Your task to perform on an android device: Check the weather Image 0: 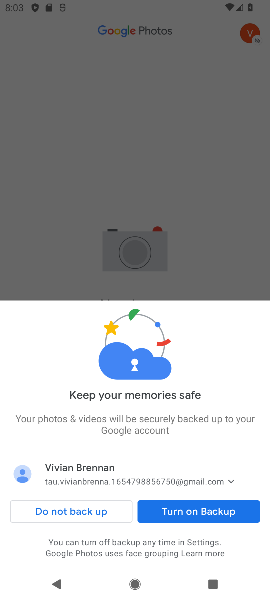
Step 0: press home button
Your task to perform on an android device: Check the weather Image 1: 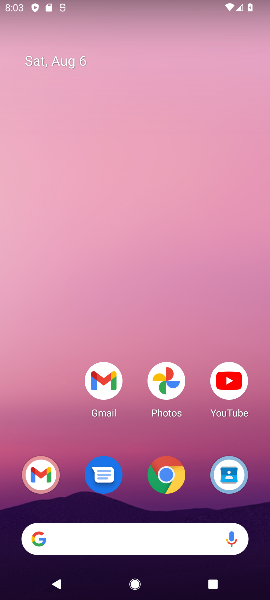
Step 1: drag from (129, 440) to (132, 89)
Your task to perform on an android device: Check the weather Image 2: 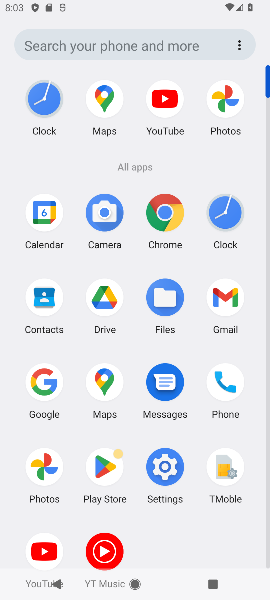
Step 2: click (49, 374)
Your task to perform on an android device: Check the weather Image 3: 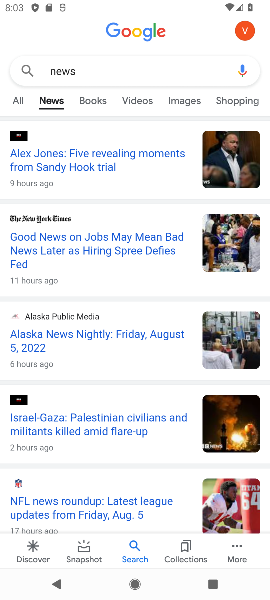
Step 3: click (94, 78)
Your task to perform on an android device: Check the weather Image 4: 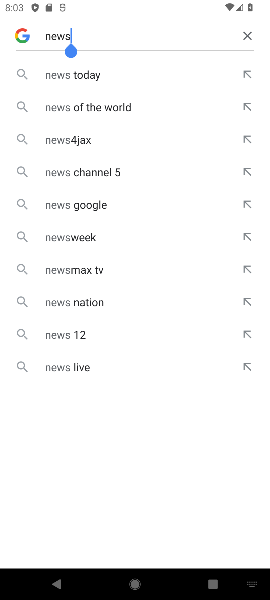
Step 4: click (243, 30)
Your task to perform on an android device: Check the weather Image 5: 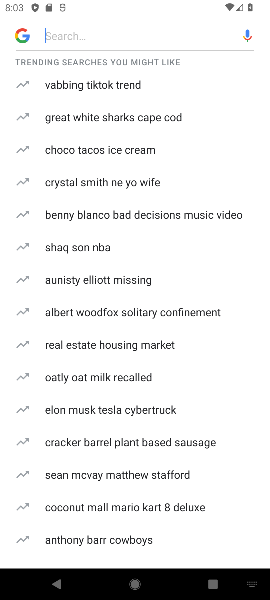
Step 5: type "weather"
Your task to perform on an android device: Check the weather Image 6: 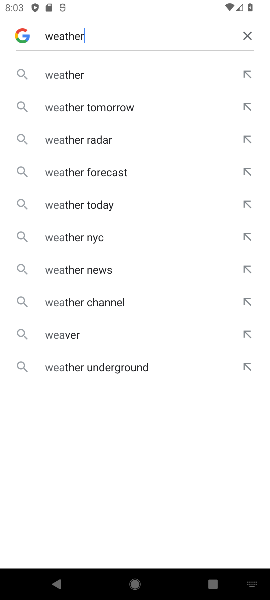
Step 6: type ""
Your task to perform on an android device: Check the weather Image 7: 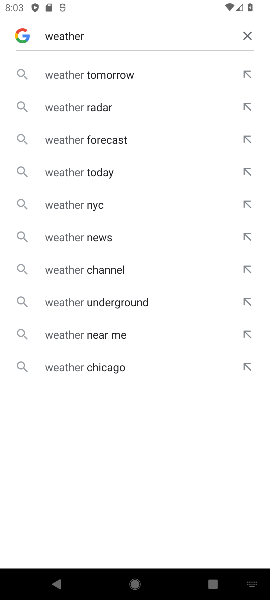
Step 7: click (127, 79)
Your task to perform on an android device: Check the weather Image 8: 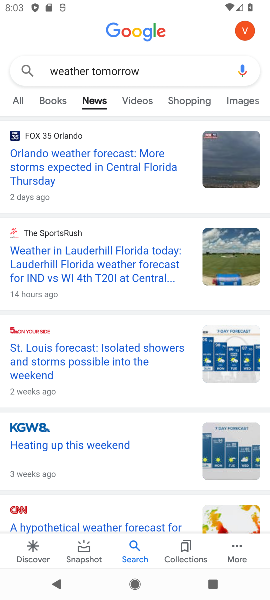
Step 8: click (21, 110)
Your task to perform on an android device: Check the weather Image 9: 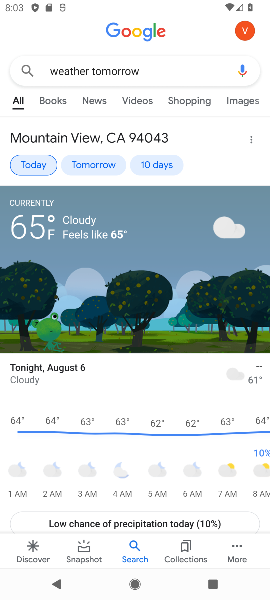
Step 9: task complete